Your task to perform on an android device: open app "Firefox Browser" Image 0: 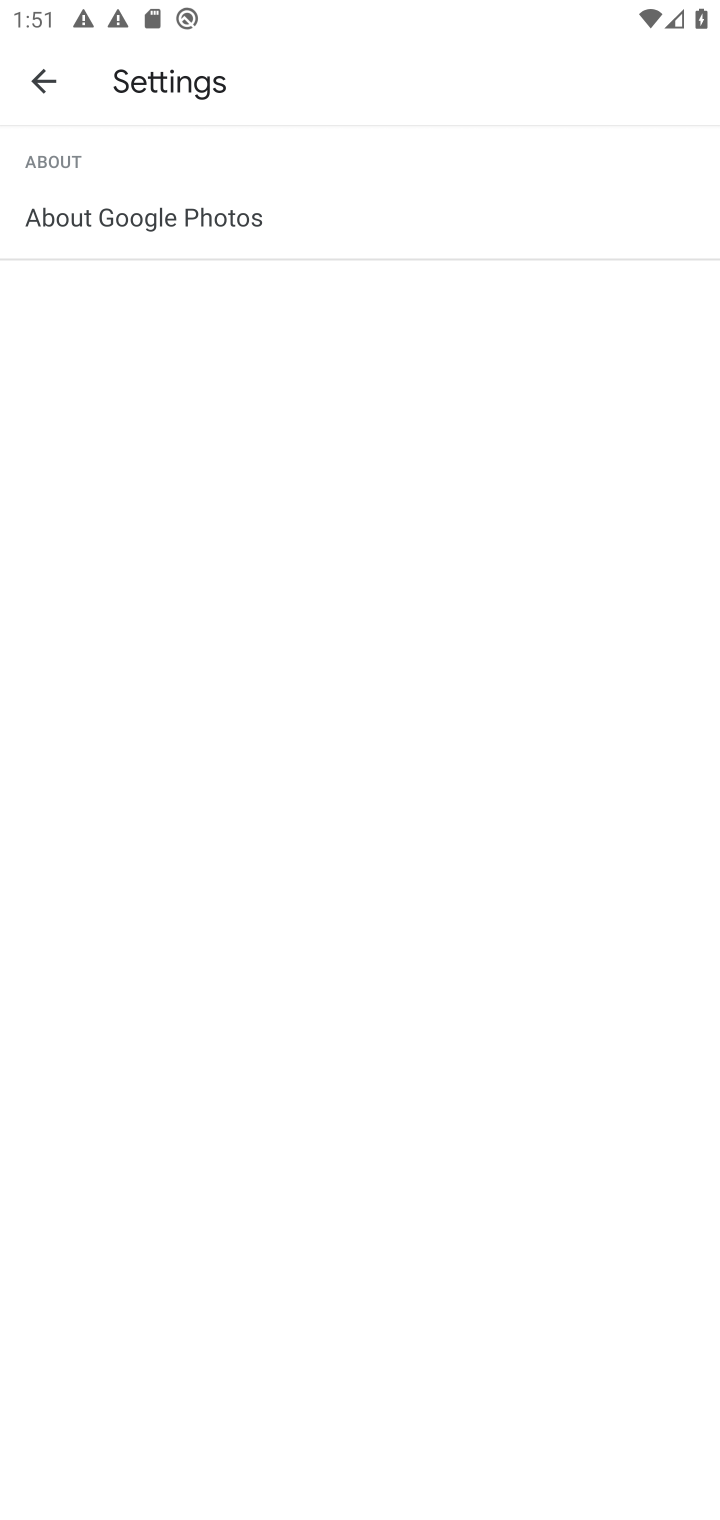
Step 0: press home button
Your task to perform on an android device: open app "Firefox Browser" Image 1: 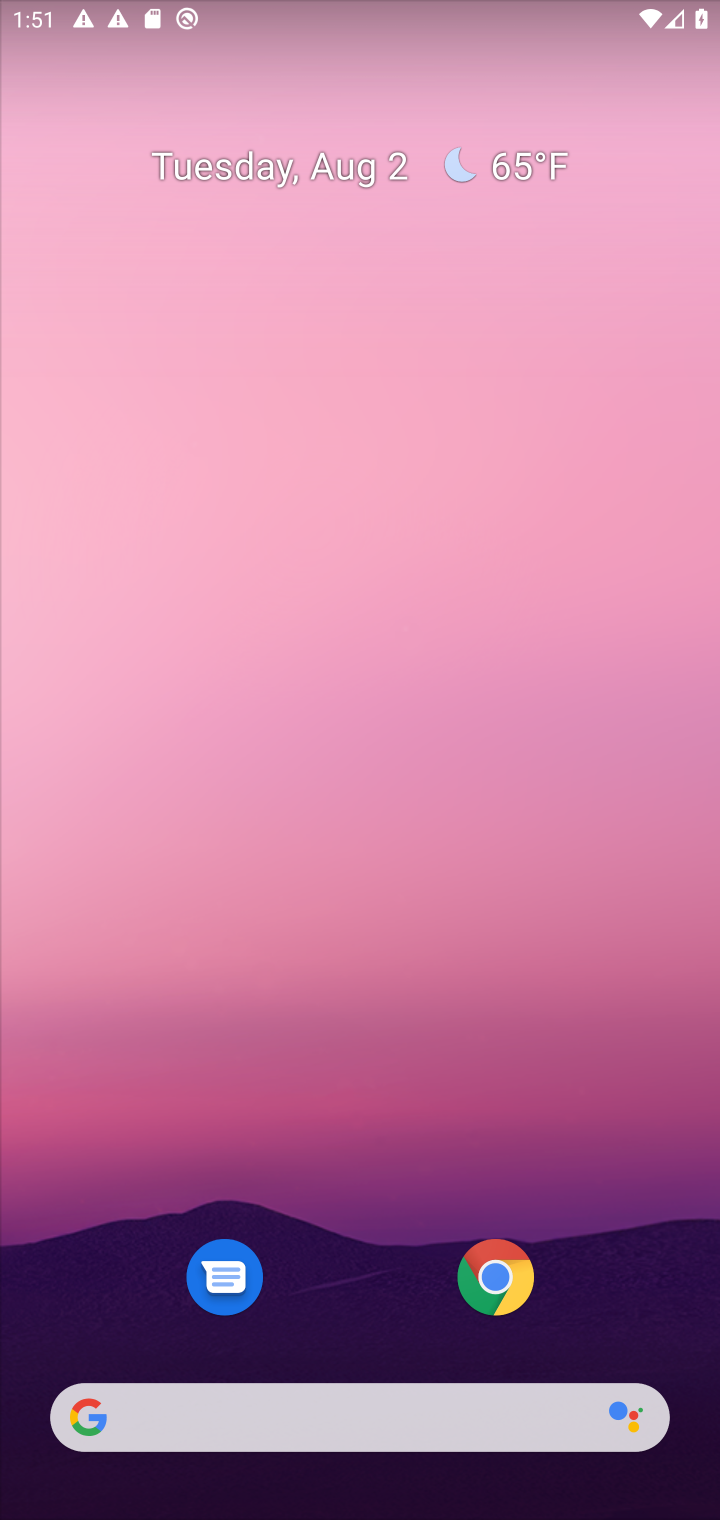
Step 1: drag from (470, 832) to (552, 316)
Your task to perform on an android device: open app "Firefox Browser" Image 2: 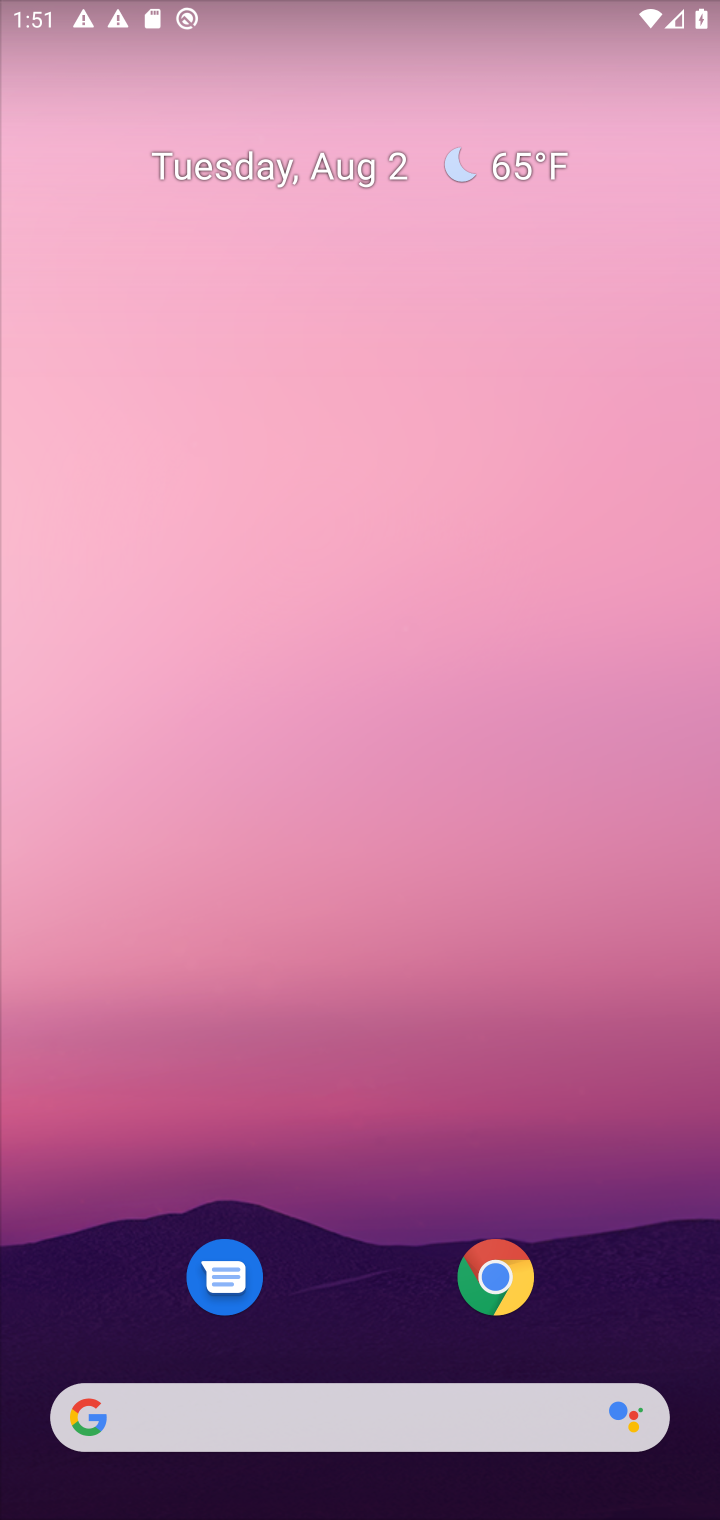
Step 2: drag from (374, 1324) to (627, 6)
Your task to perform on an android device: open app "Firefox Browser" Image 3: 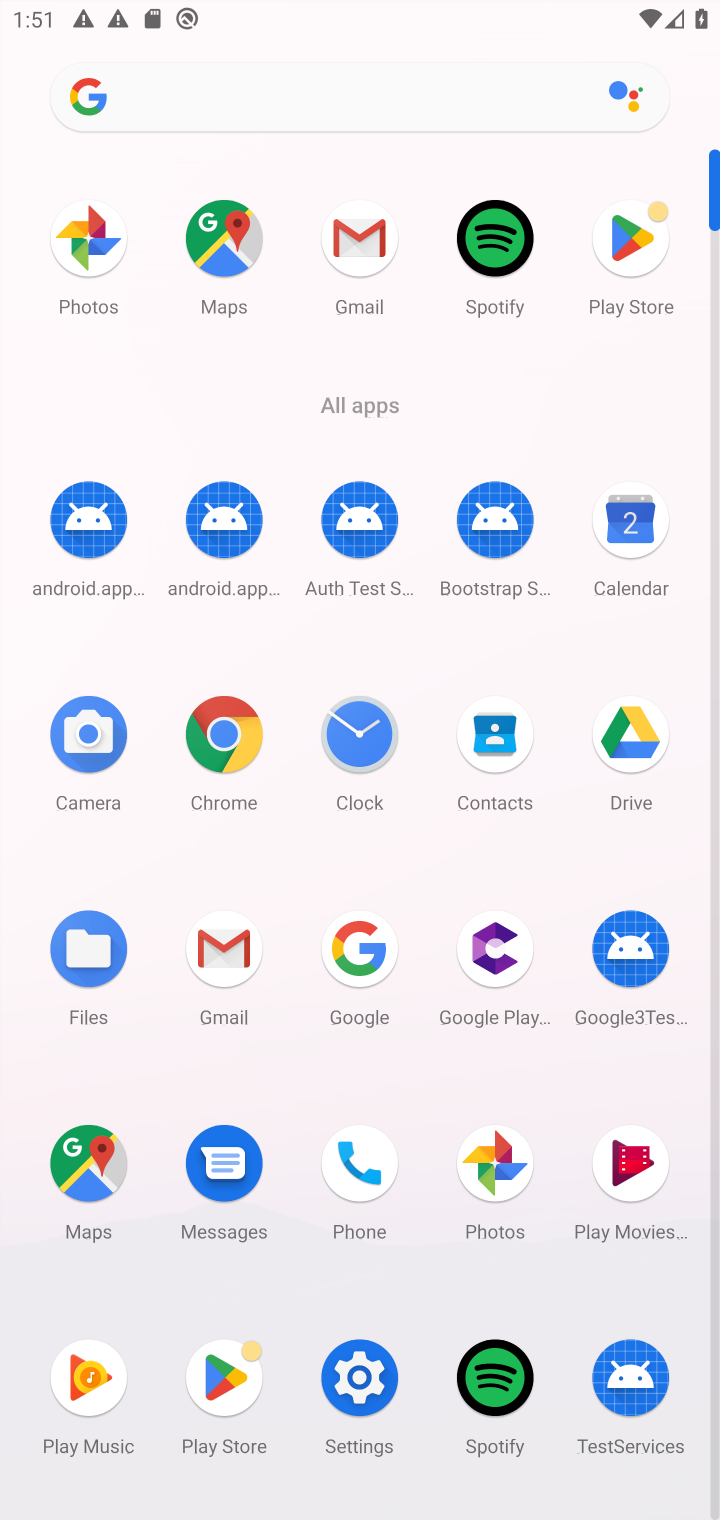
Step 3: click (235, 1385)
Your task to perform on an android device: open app "Firefox Browser" Image 4: 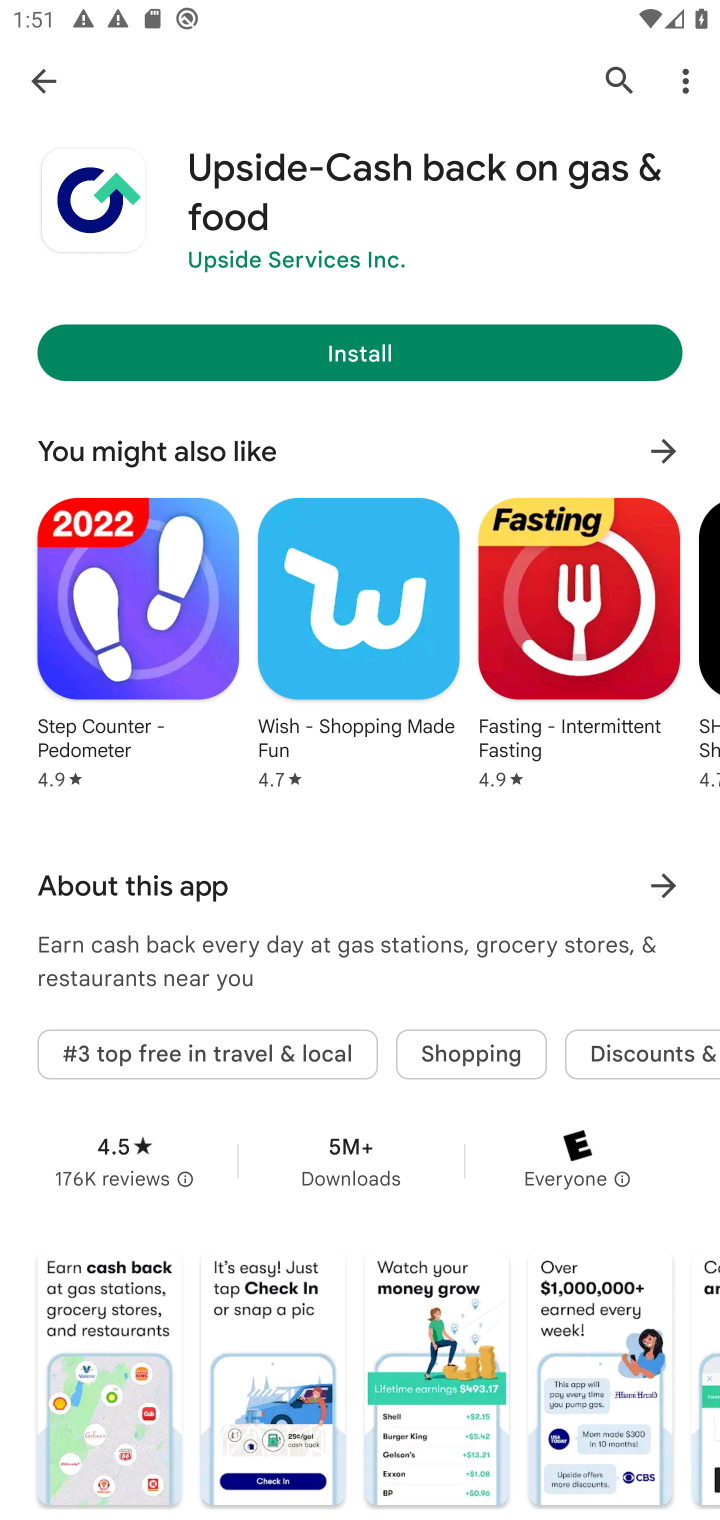
Step 4: click (621, 80)
Your task to perform on an android device: open app "Firefox Browser" Image 5: 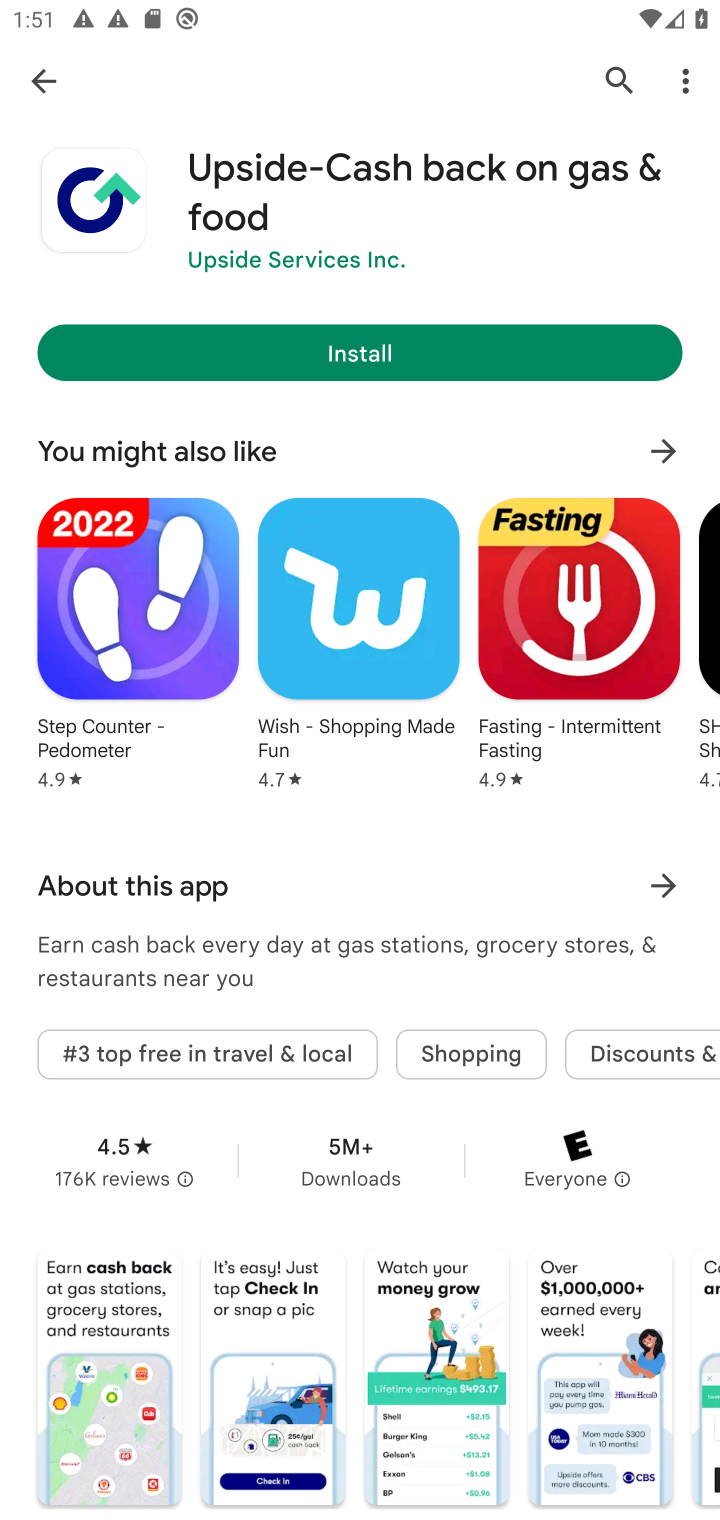
Step 5: click (621, 65)
Your task to perform on an android device: open app "Firefox Browser" Image 6: 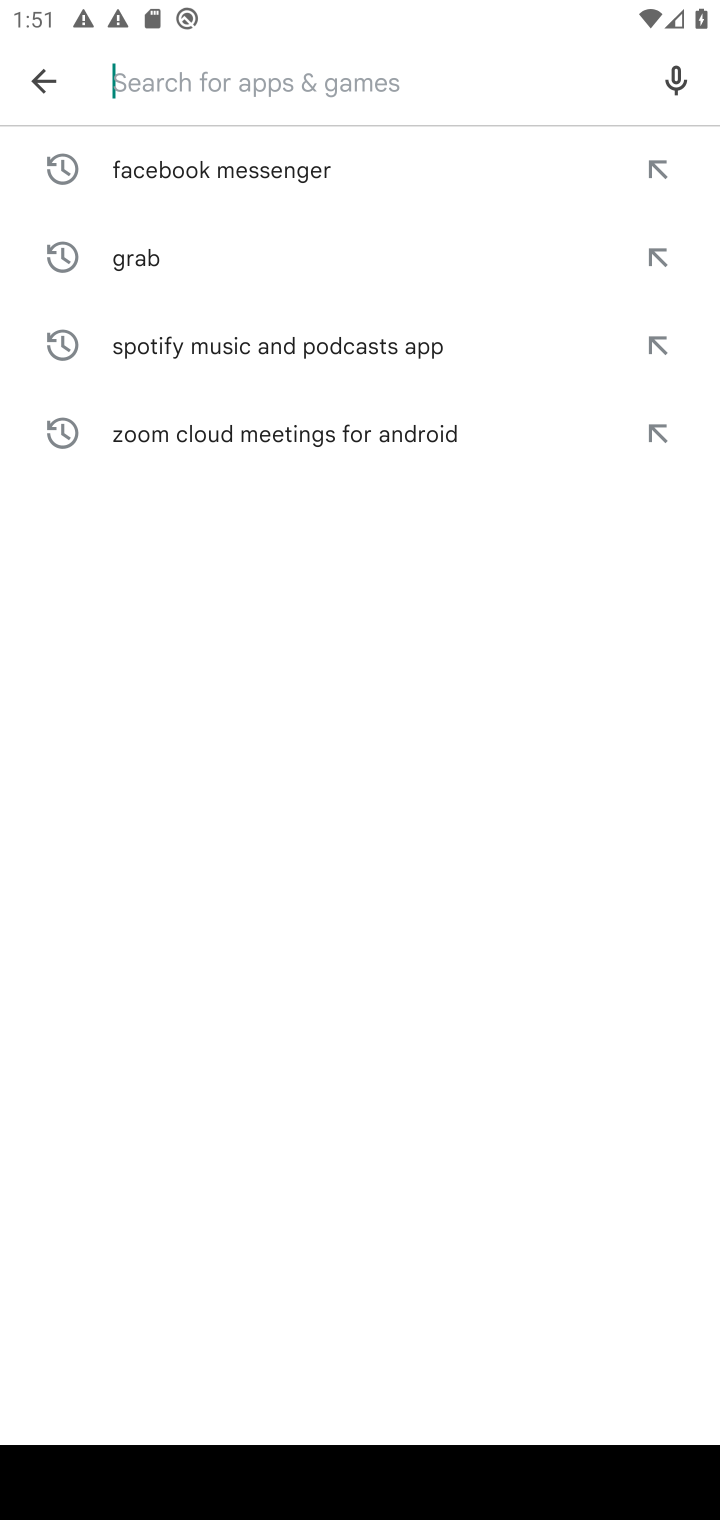
Step 6: type "Firefox Browser"
Your task to perform on an android device: open app "Firefox Browser" Image 7: 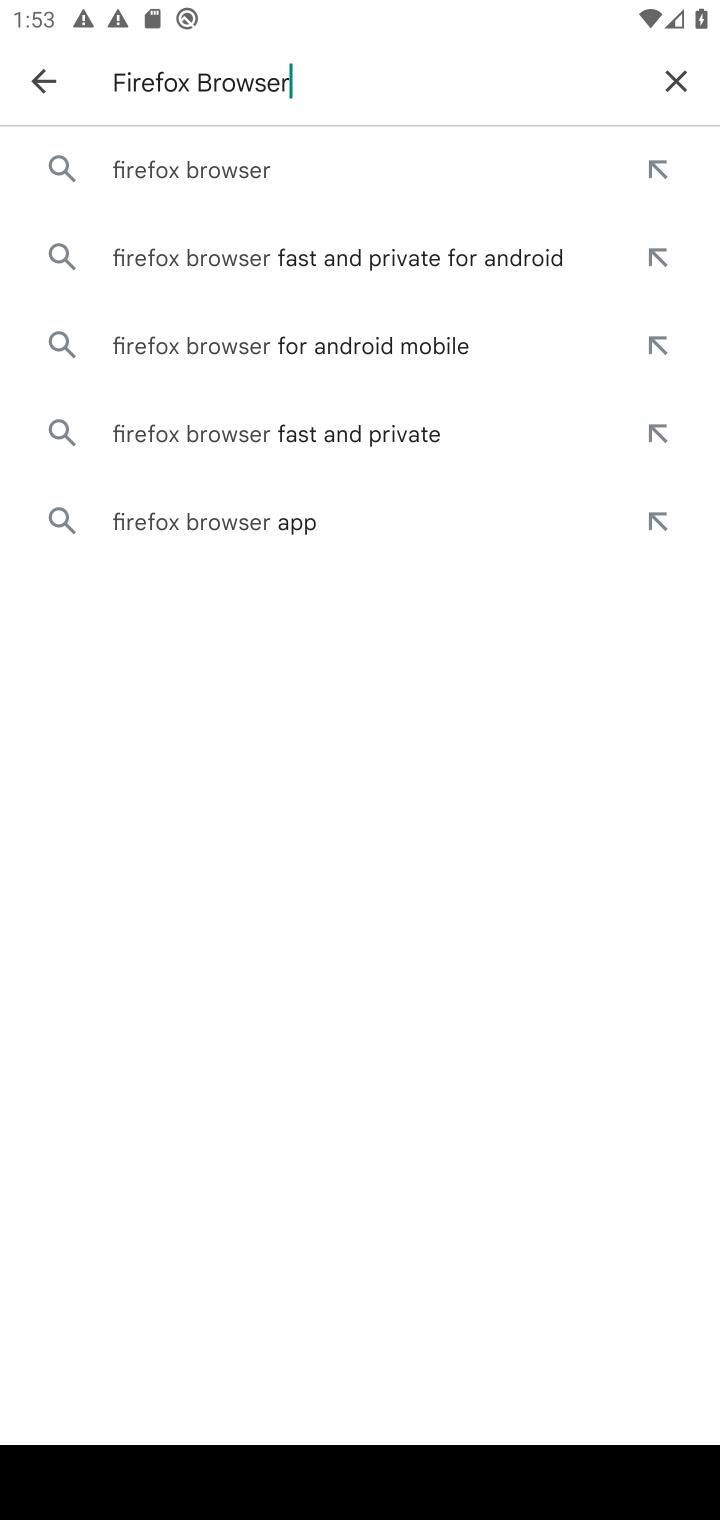
Step 7: click (215, 172)
Your task to perform on an android device: open app "Firefox Browser" Image 8: 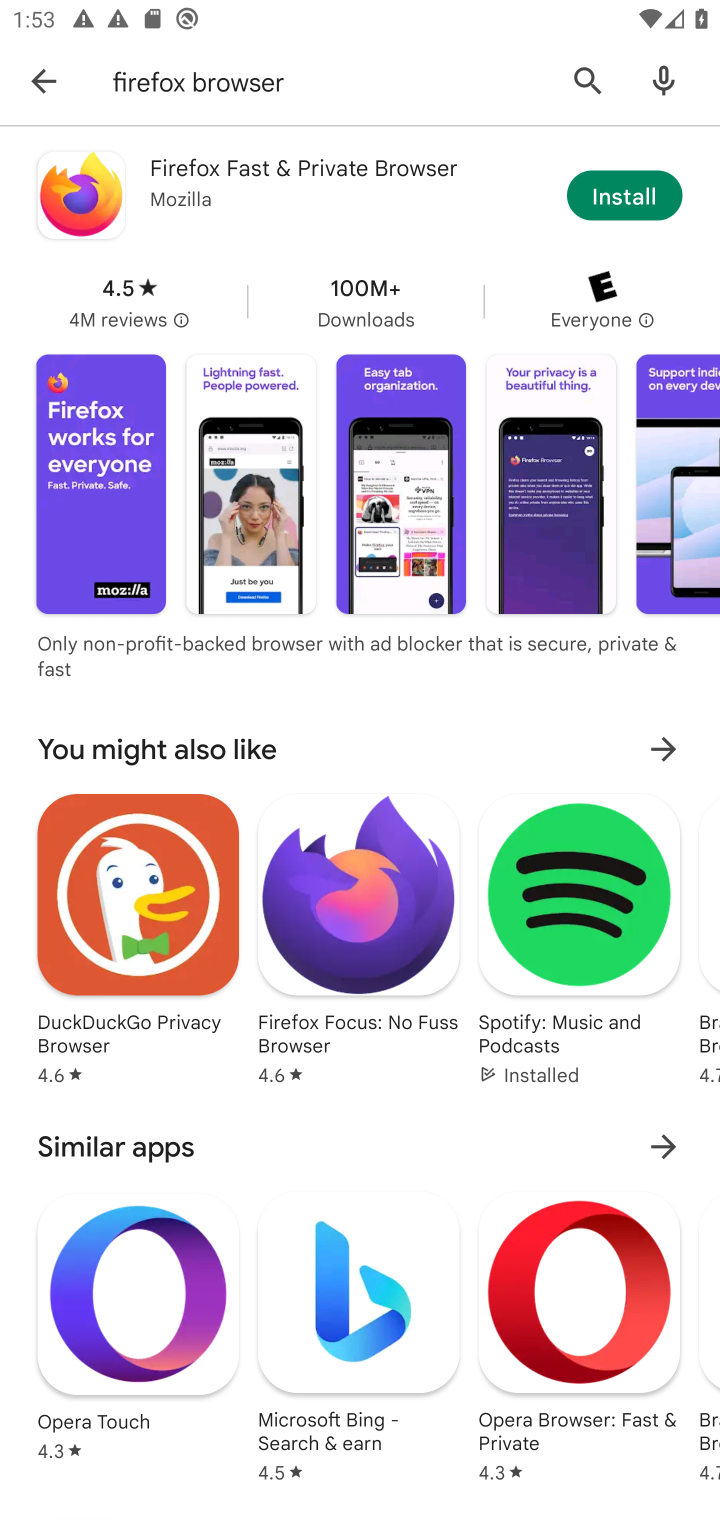
Step 8: click (646, 185)
Your task to perform on an android device: open app "Firefox Browser" Image 9: 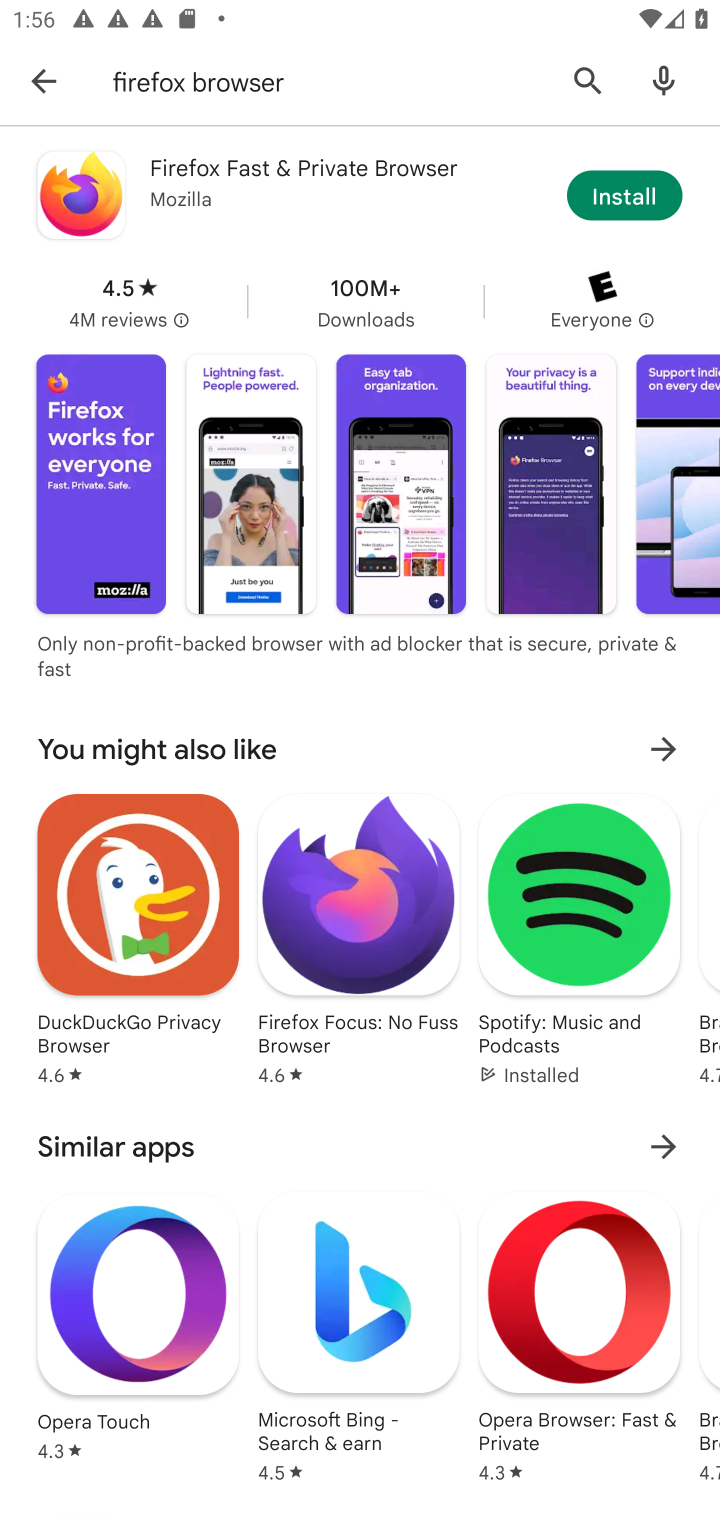
Step 9: task complete